Your task to perform on an android device: Do I have any events today? Image 0: 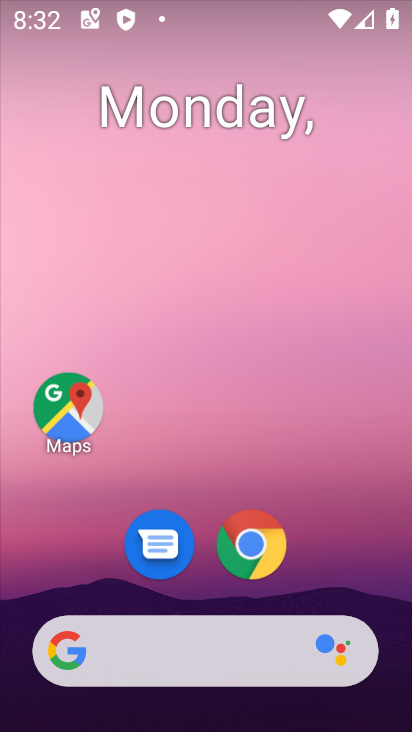
Step 0: drag from (334, 548) to (210, 16)
Your task to perform on an android device: Do I have any events today? Image 1: 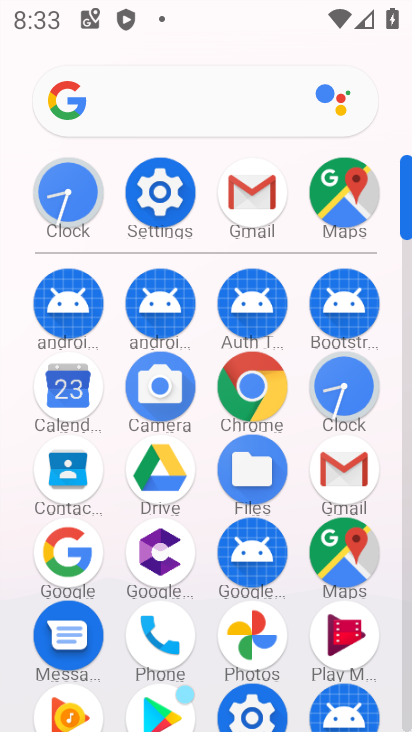
Step 1: click (64, 381)
Your task to perform on an android device: Do I have any events today? Image 2: 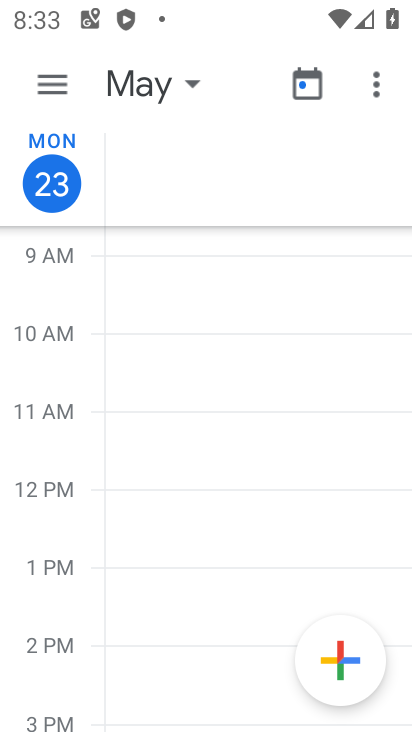
Step 2: task complete